Your task to perform on an android device: add a label to a message in the gmail app Image 0: 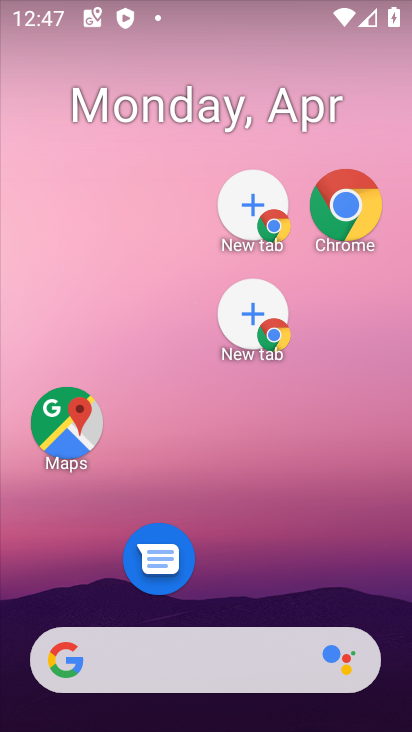
Step 0: drag from (264, 586) to (259, 90)
Your task to perform on an android device: add a label to a message in the gmail app Image 1: 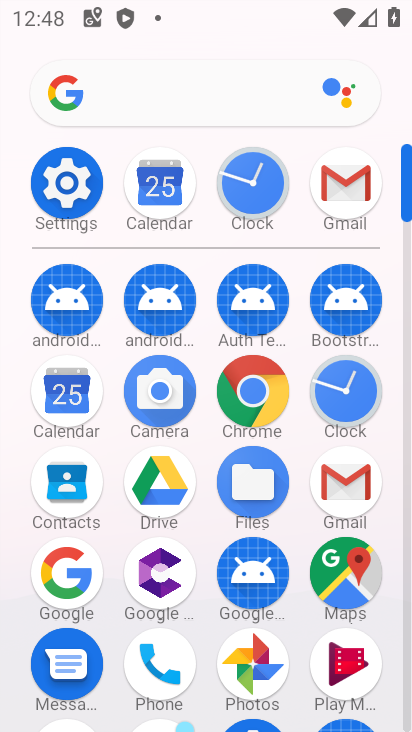
Step 1: click (351, 487)
Your task to perform on an android device: add a label to a message in the gmail app Image 2: 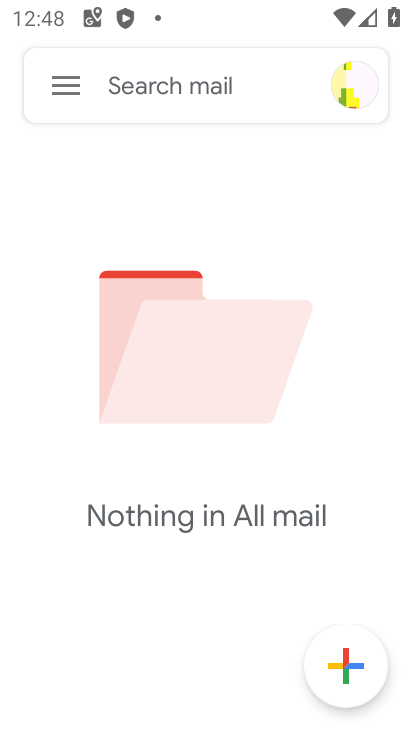
Step 2: task complete